Your task to perform on an android device: turn off notifications settings in the gmail app Image 0: 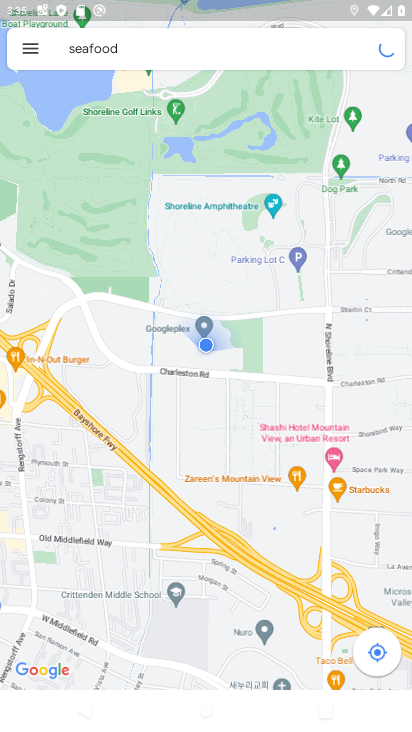
Step 0: press home button
Your task to perform on an android device: turn off notifications settings in the gmail app Image 1: 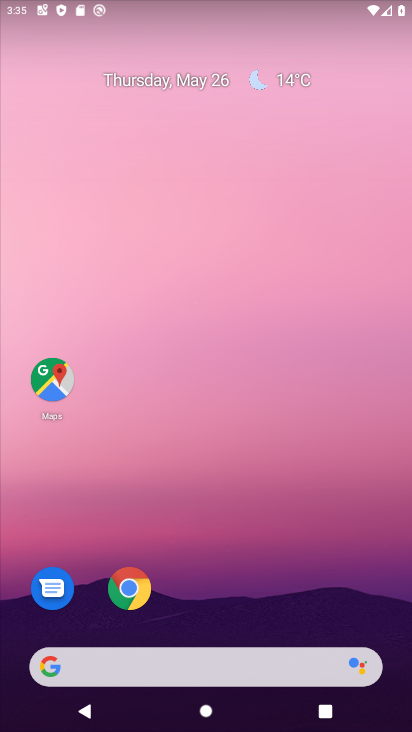
Step 1: drag from (244, 604) to (276, 91)
Your task to perform on an android device: turn off notifications settings in the gmail app Image 2: 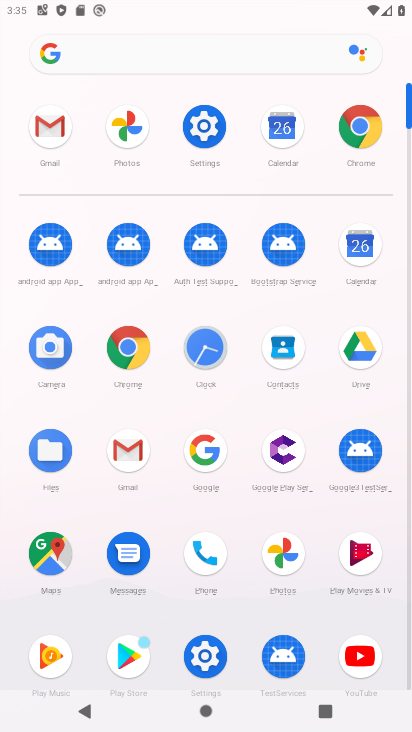
Step 2: click (55, 156)
Your task to perform on an android device: turn off notifications settings in the gmail app Image 3: 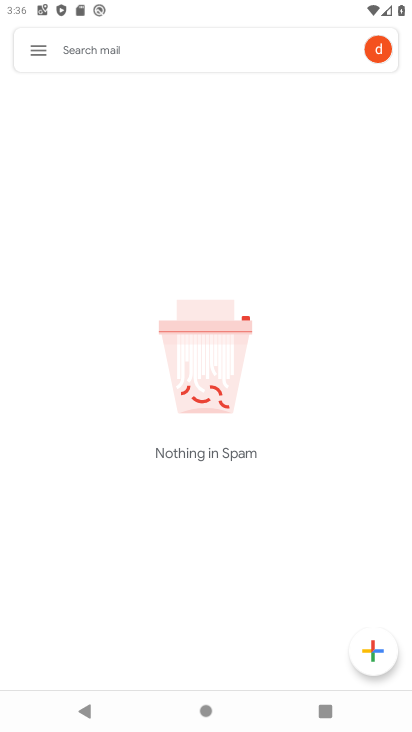
Step 3: click (33, 49)
Your task to perform on an android device: turn off notifications settings in the gmail app Image 4: 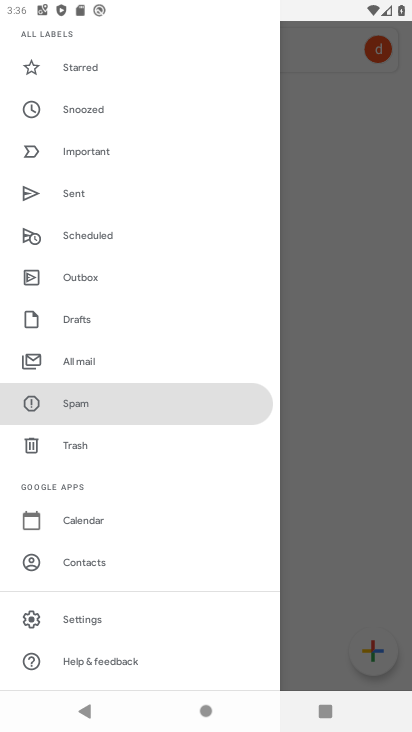
Step 4: click (100, 621)
Your task to perform on an android device: turn off notifications settings in the gmail app Image 5: 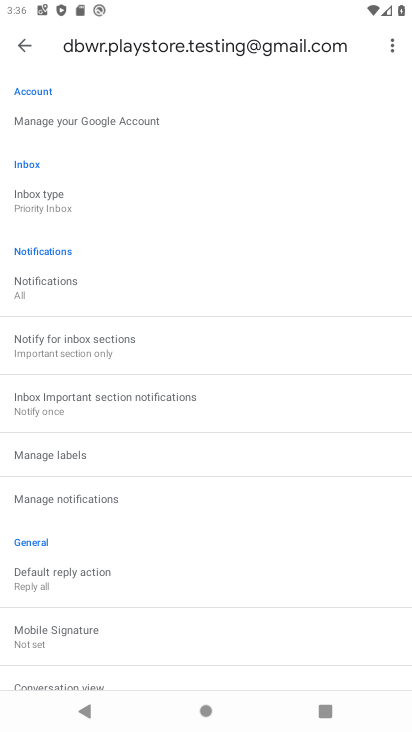
Step 5: click (111, 271)
Your task to perform on an android device: turn off notifications settings in the gmail app Image 6: 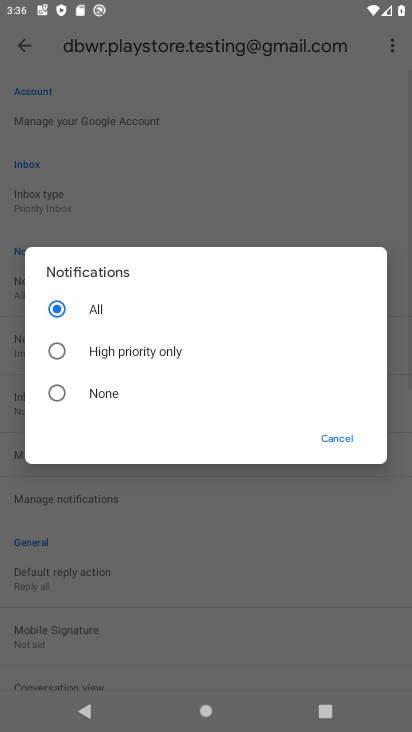
Step 6: click (123, 391)
Your task to perform on an android device: turn off notifications settings in the gmail app Image 7: 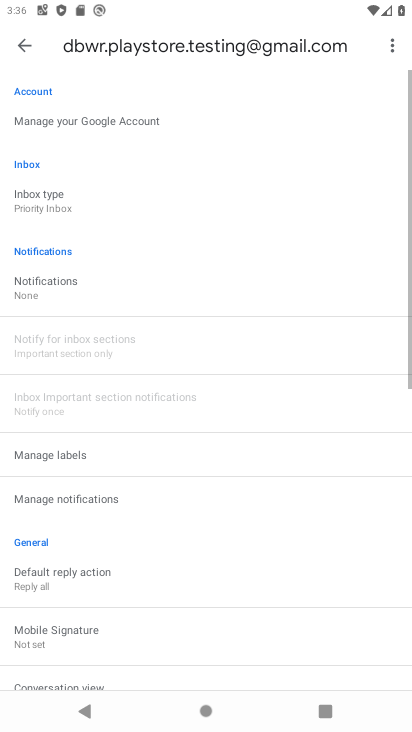
Step 7: task complete